Your task to perform on an android device: Open location settings Image 0: 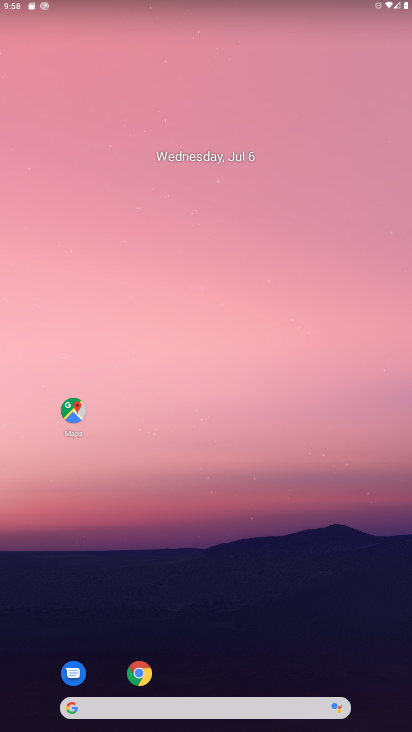
Step 0: drag from (297, 10) to (284, 303)
Your task to perform on an android device: Open location settings Image 1: 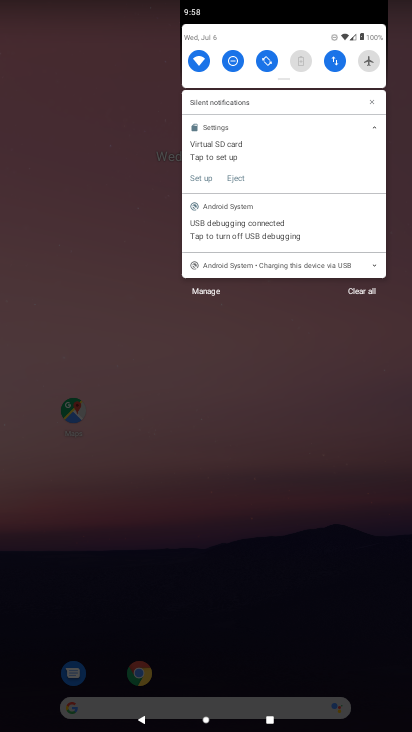
Step 1: drag from (290, 40) to (366, 316)
Your task to perform on an android device: Open location settings Image 2: 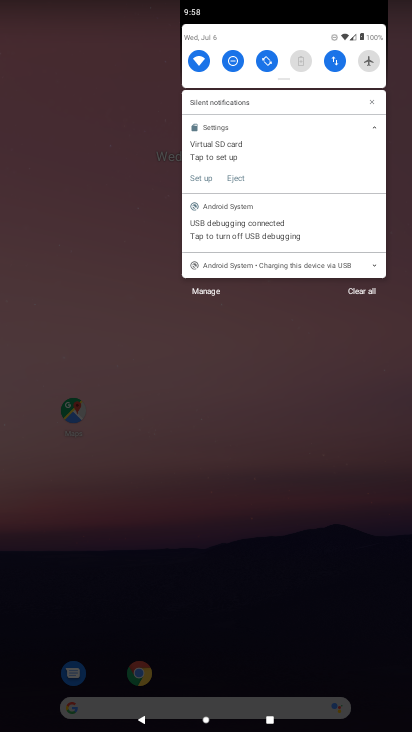
Step 2: drag from (285, 32) to (276, 300)
Your task to perform on an android device: Open location settings Image 3: 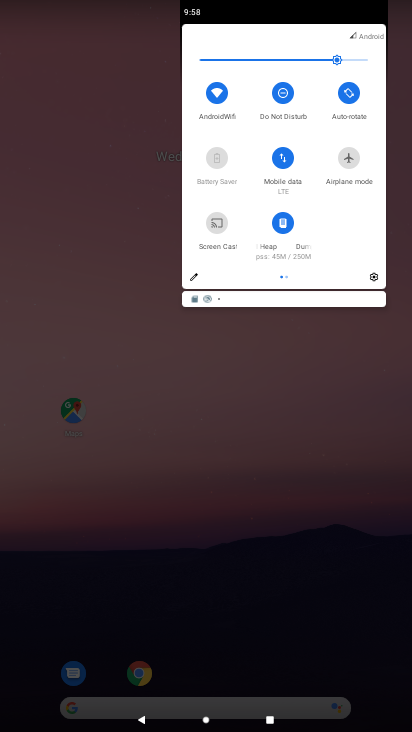
Step 3: click (372, 274)
Your task to perform on an android device: Open location settings Image 4: 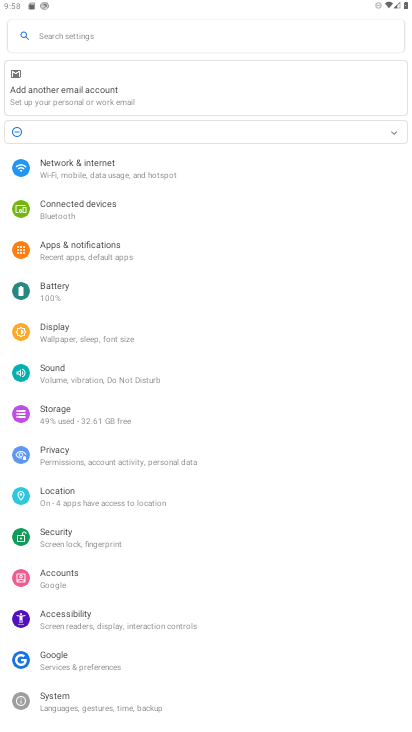
Step 4: click (74, 504)
Your task to perform on an android device: Open location settings Image 5: 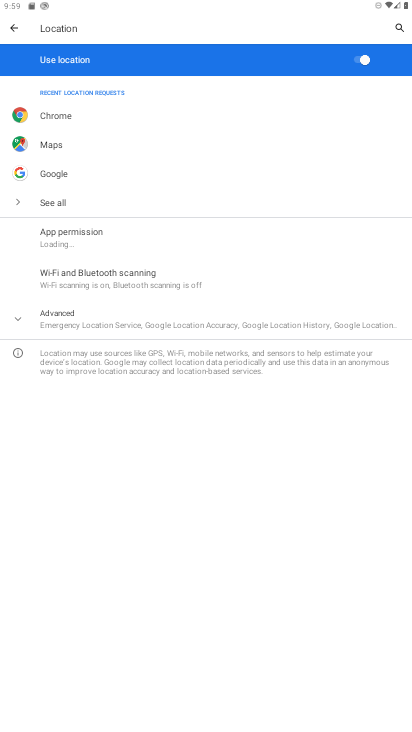
Step 5: task complete